Your task to perform on an android device: turn on wifi Image 0: 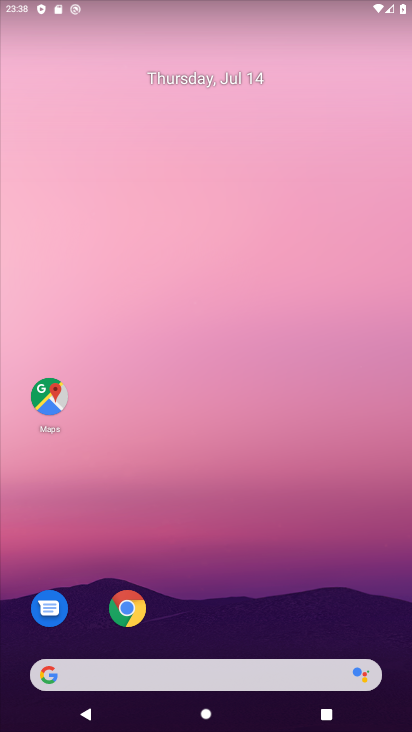
Step 0: drag from (28, 713) to (347, 110)
Your task to perform on an android device: turn on wifi Image 1: 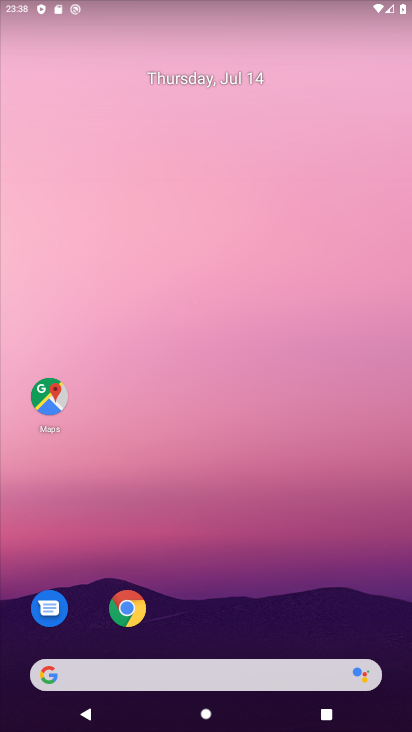
Step 1: drag from (16, 712) to (396, 122)
Your task to perform on an android device: turn on wifi Image 2: 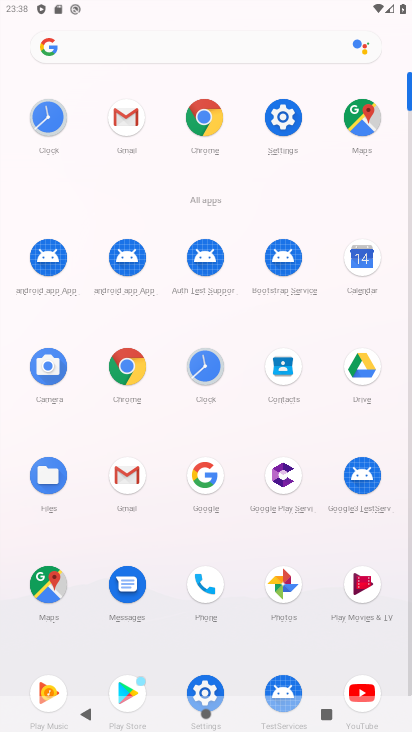
Step 2: click (221, 685)
Your task to perform on an android device: turn on wifi Image 3: 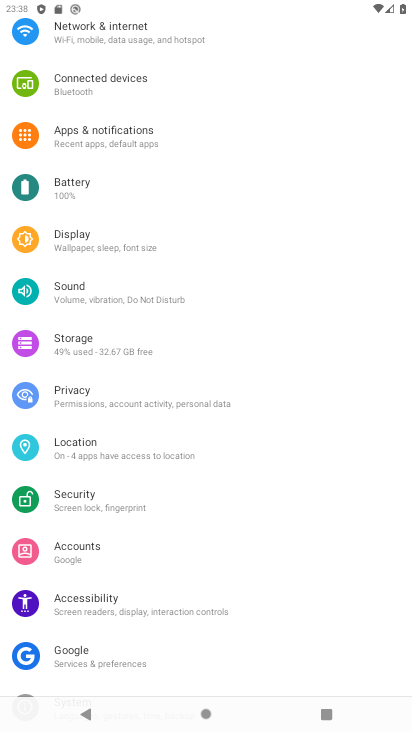
Step 3: click (125, 26)
Your task to perform on an android device: turn on wifi Image 4: 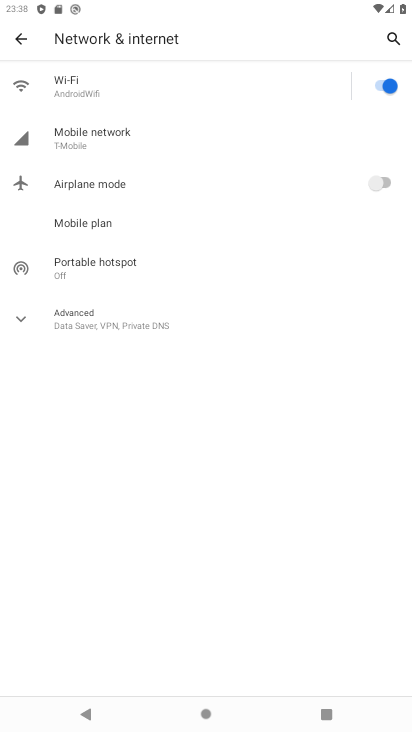
Step 4: task complete